Your task to perform on an android device: Go to Yahoo.com Image 0: 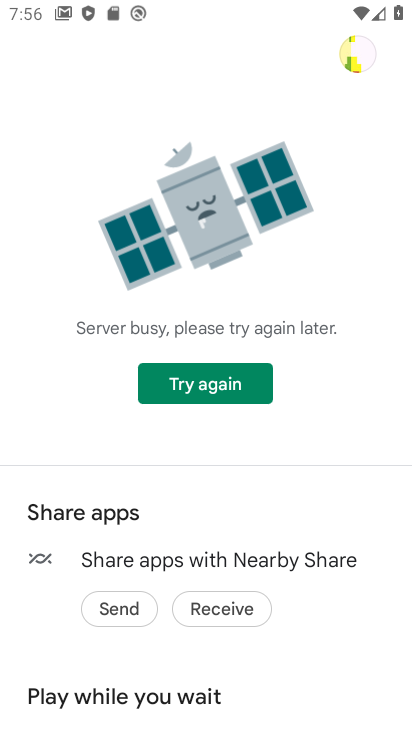
Step 0: press home button
Your task to perform on an android device: Go to Yahoo.com Image 1: 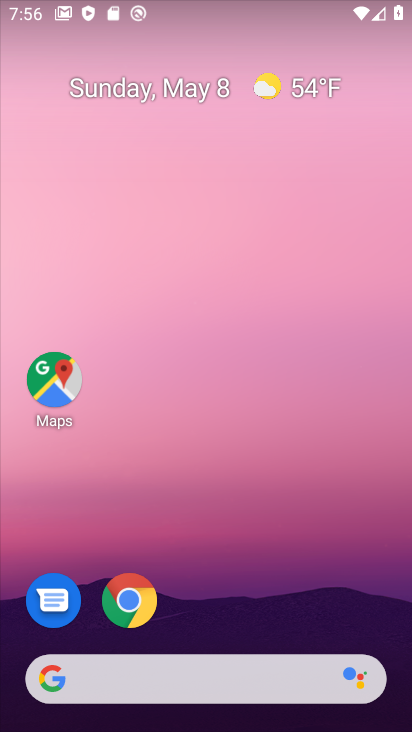
Step 1: click (131, 602)
Your task to perform on an android device: Go to Yahoo.com Image 2: 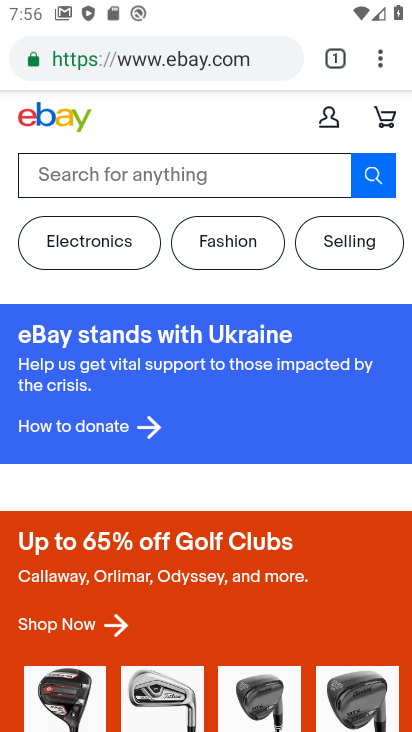
Step 2: click (345, 54)
Your task to perform on an android device: Go to Yahoo.com Image 3: 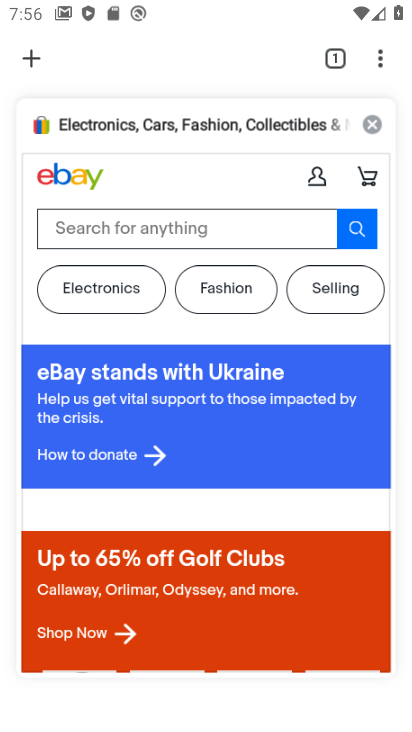
Step 3: click (37, 62)
Your task to perform on an android device: Go to Yahoo.com Image 4: 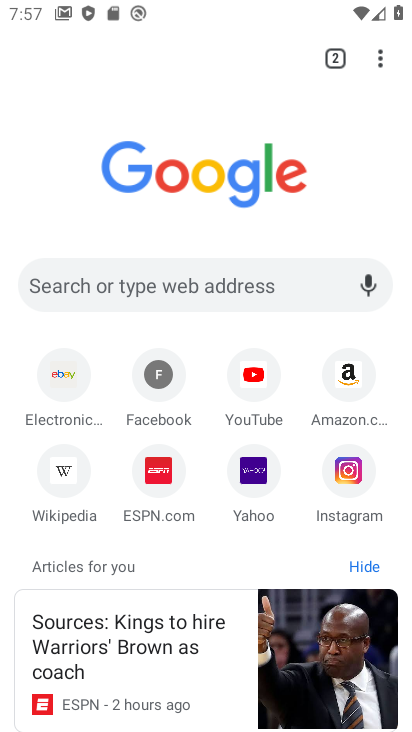
Step 4: click (260, 473)
Your task to perform on an android device: Go to Yahoo.com Image 5: 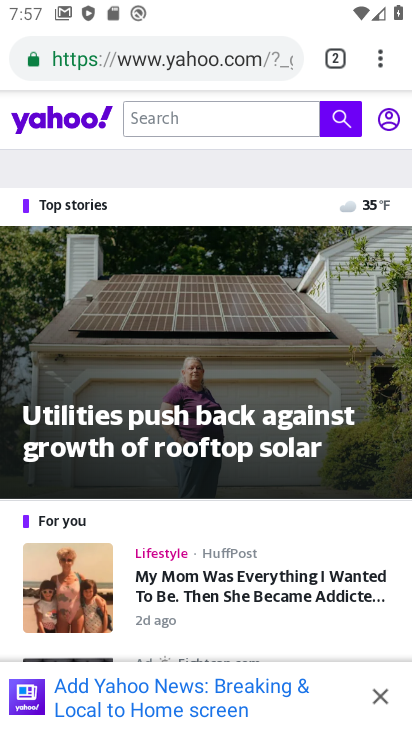
Step 5: task complete